Your task to perform on an android device: open wifi settings Image 0: 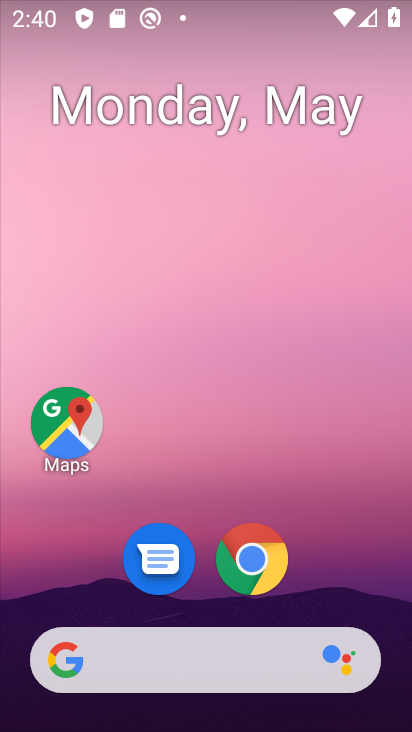
Step 0: drag from (329, 472) to (274, 18)
Your task to perform on an android device: open wifi settings Image 1: 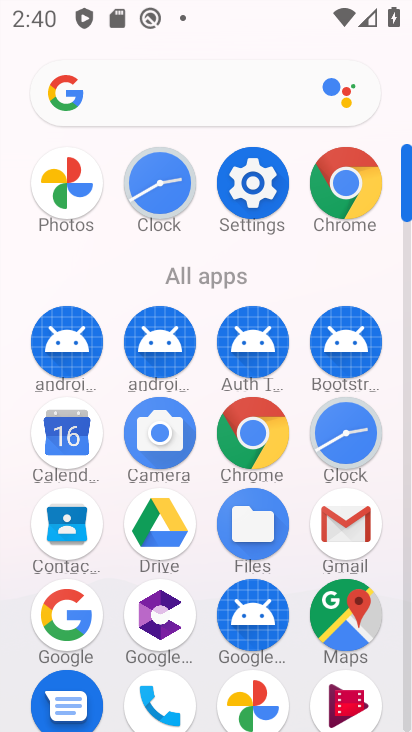
Step 1: click (255, 182)
Your task to perform on an android device: open wifi settings Image 2: 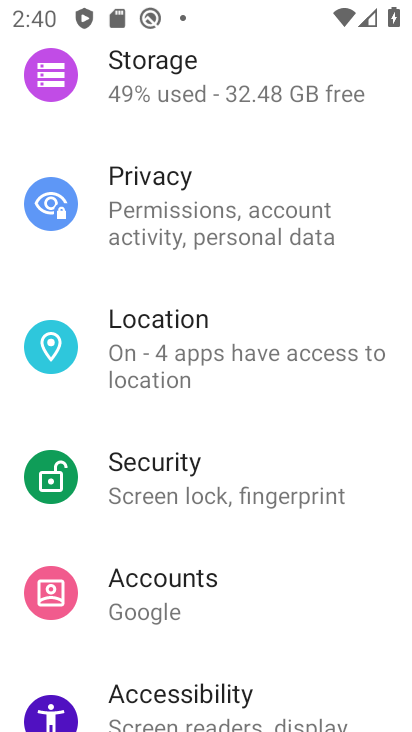
Step 2: drag from (275, 496) to (284, 116)
Your task to perform on an android device: open wifi settings Image 3: 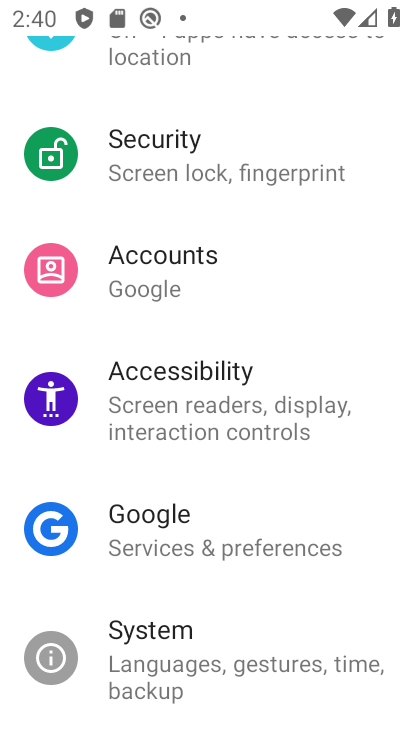
Step 3: drag from (291, 181) to (305, 550)
Your task to perform on an android device: open wifi settings Image 4: 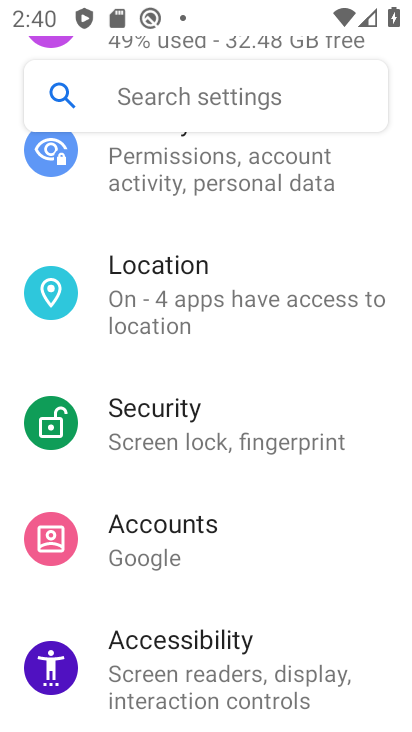
Step 4: drag from (297, 250) to (300, 601)
Your task to perform on an android device: open wifi settings Image 5: 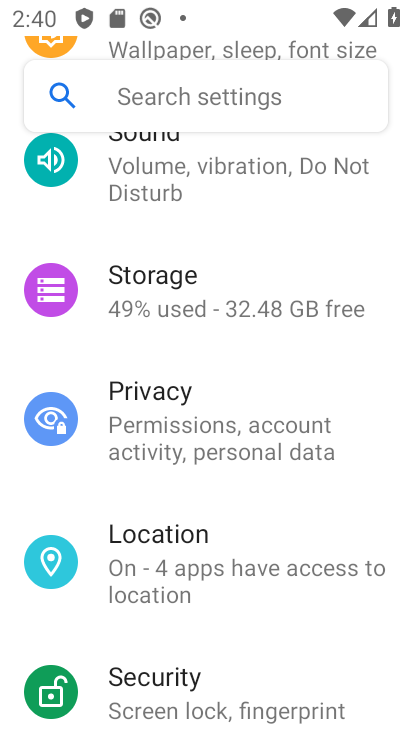
Step 5: drag from (282, 344) to (301, 627)
Your task to perform on an android device: open wifi settings Image 6: 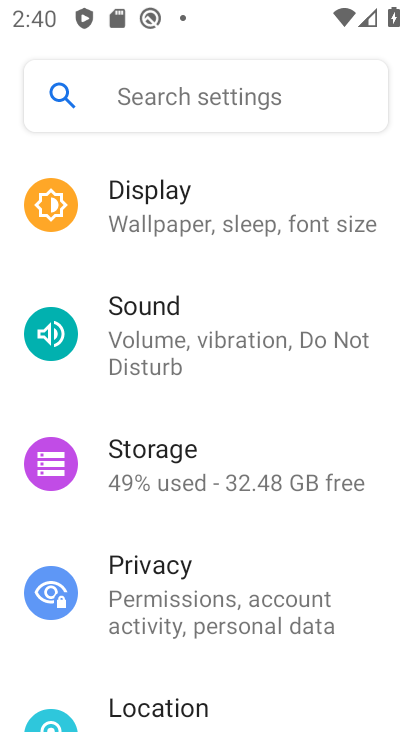
Step 6: drag from (262, 217) to (284, 583)
Your task to perform on an android device: open wifi settings Image 7: 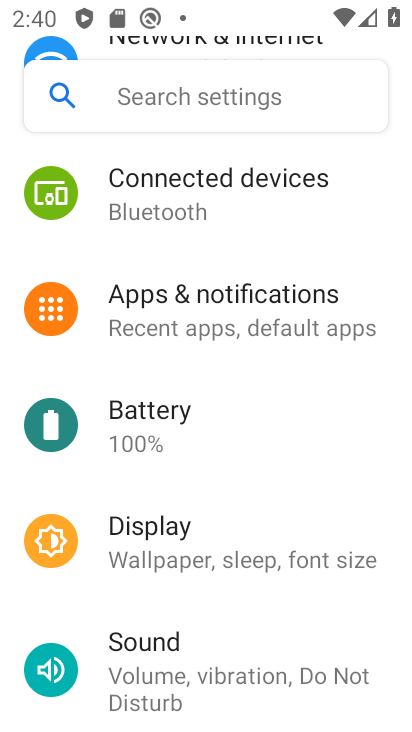
Step 7: drag from (247, 280) to (244, 617)
Your task to perform on an android device: open wifi settings Image 8: 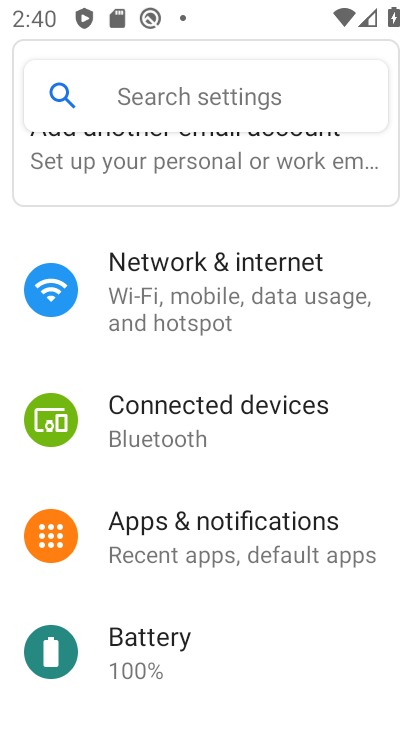
Step 8: click (250, 309)
Your task to perform on an android device: open wifi settings Image 9: 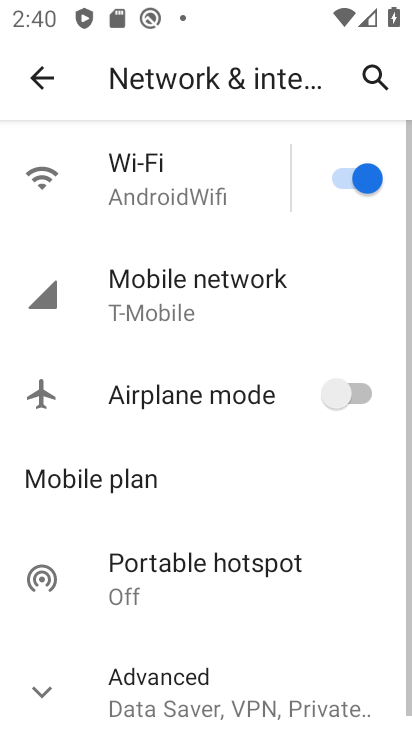
Step 9: click (80, 694)
Your task to perform on an android device: open wifi settings Image 10: 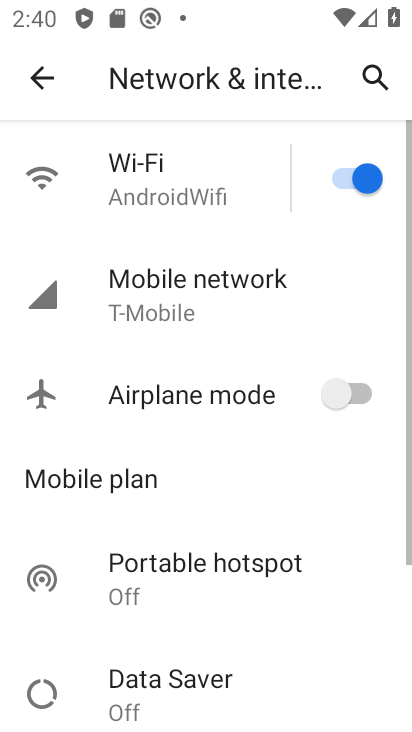
Step 10: task complete